Your task to perform on an android device: toggle pop-ups in chrome Image 0: 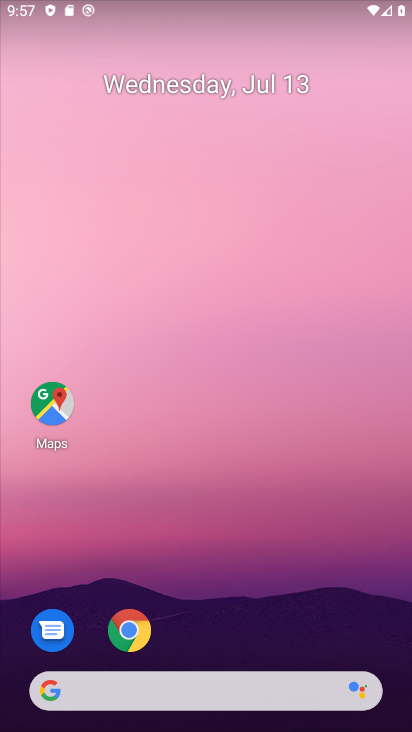
Step 0: click (140, 637)
Your task to perform on an android device: toggle pop-ups in chrome Image 1: 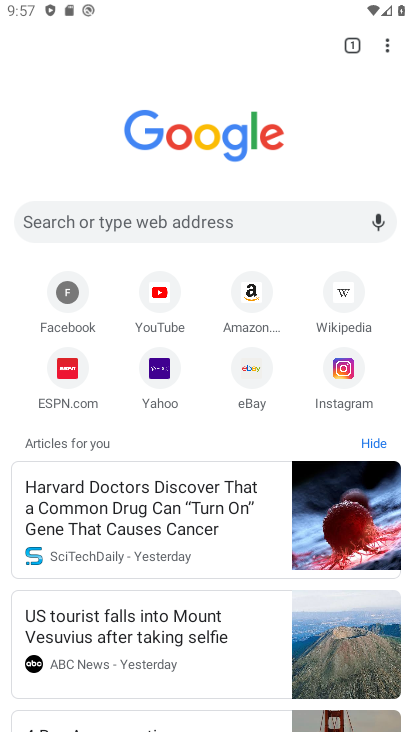
Step 1: click (391, 43)
Your task to perform on an android device: toggle pop-ups in chrome Image 2: 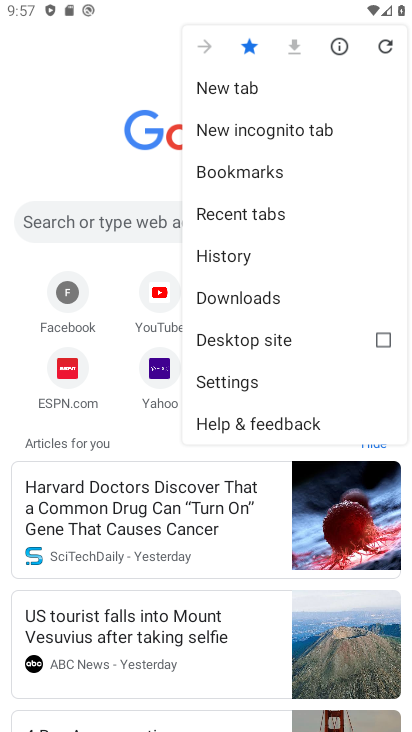
Step 2: click (258, 381)
Your task to perform on an android device: toggle pop-ups in chrome Image 3: 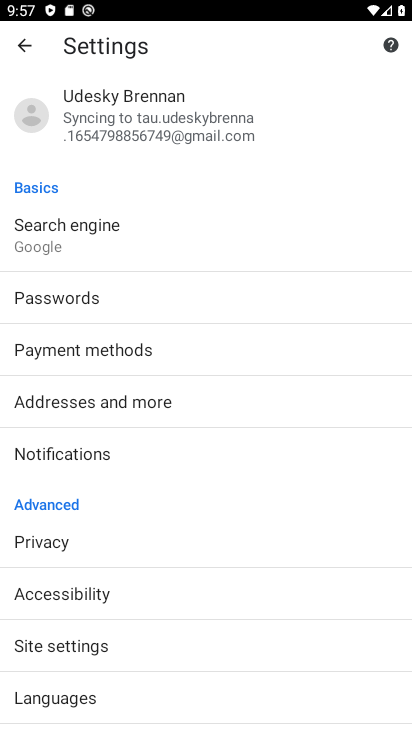
Step 3: click (124, 646)
Your task to perform on an android device: toggle pop-ups in chrome Image 4: 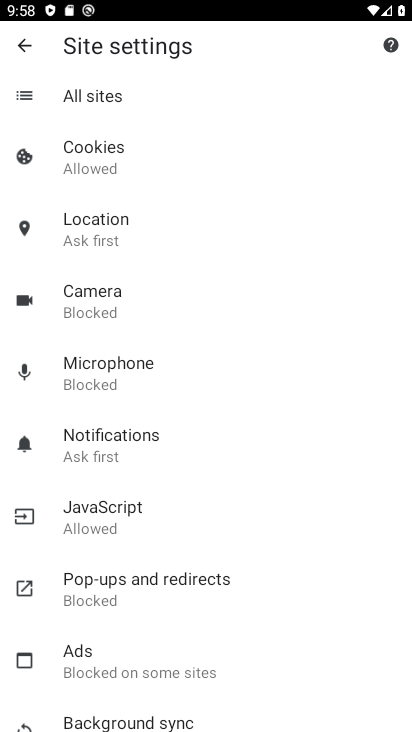
Step 4: click (128, 593)
Your task to perform on an android device: toggle pop-ups in chrome Image 5: 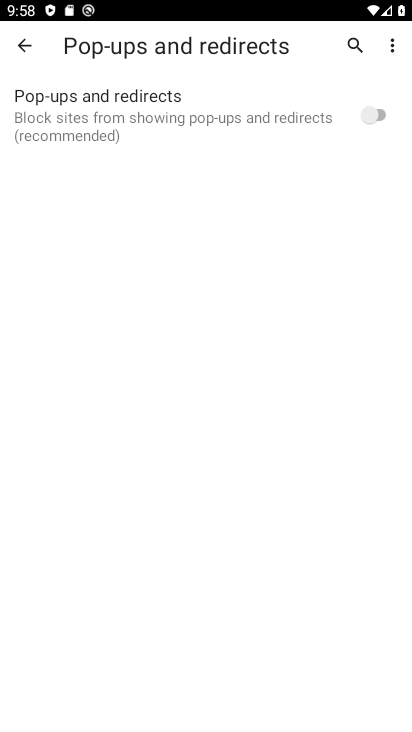
Step 5: click (379, 110)
Your task to perform on an android device: toggle pop-ups in chrome Image 6: 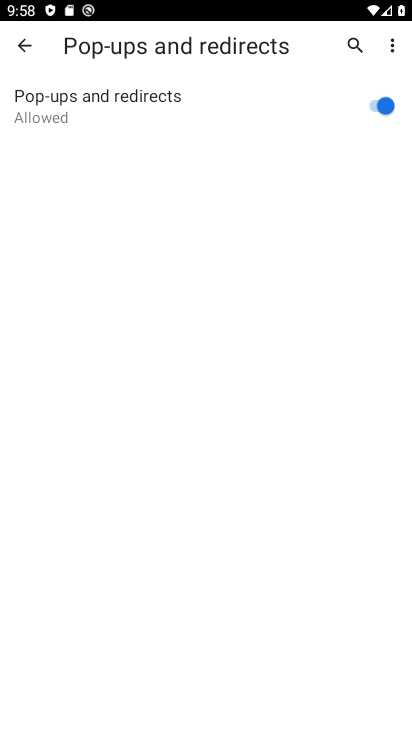
Step 6: task complete